Your task to perform on an android device: turn pop-ups on in chrome Image 0: 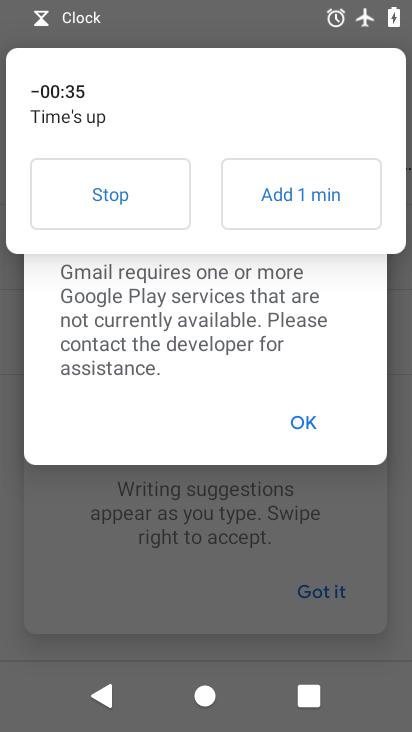
Step 0: press home button
Your task to perform on an android device: turn pop-ups on in chrome Image 1: 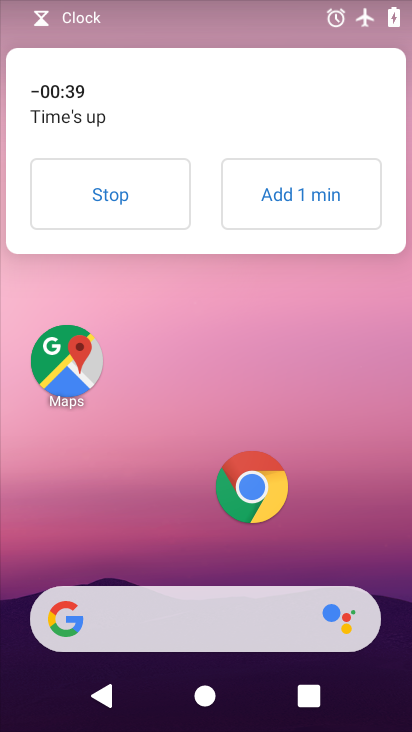
Step 1: click (249, 463)
Your task to perform on an android device: turn pop-ups on in chrome Image 2: 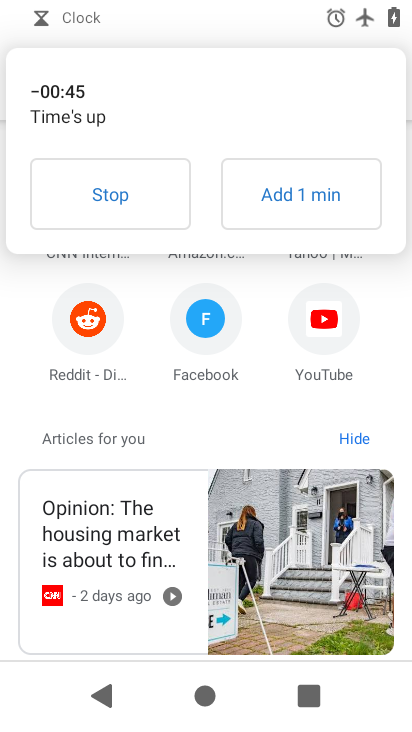
Step 2: click (121, 174)
Your task to perform on an android device: turn pop-ups on in chrome Image 3: 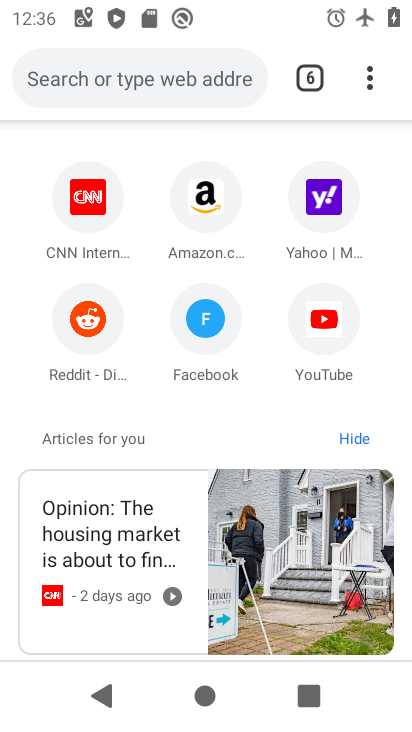
Step 3: drag from (375, 79) to (117, 549)
Your task to perform on an android device: turn pop-ups on in chrome Image 4: 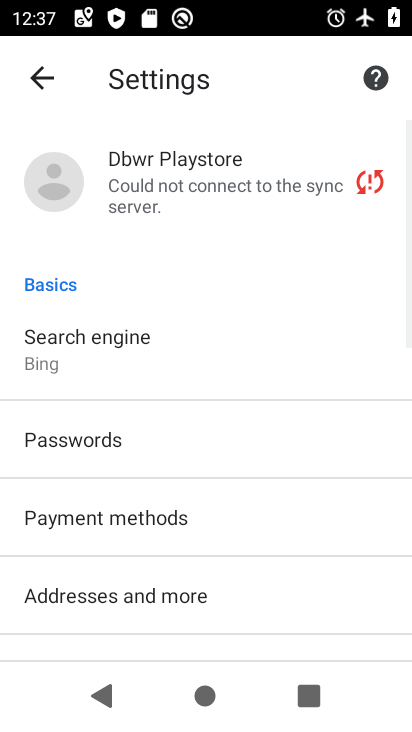
Step 4: drag from (198, 552) to (221, 155)
Your task to perform on an android device: turn pop-ups on in chrome Image 5: 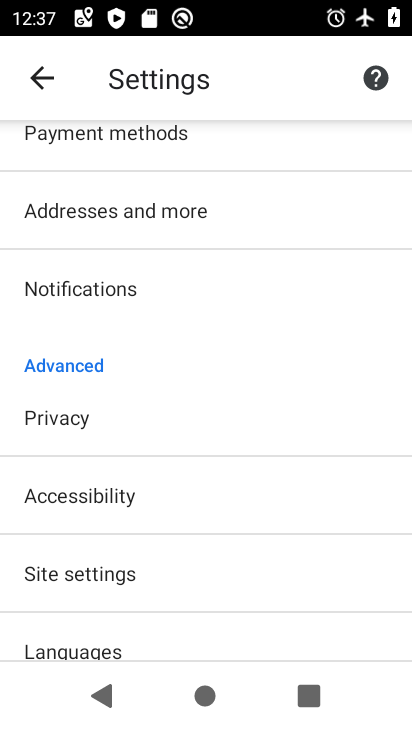
Step 5: click (115, 563)
Your task to perform on an android device: turn pop-ups on in chrome Image 6: 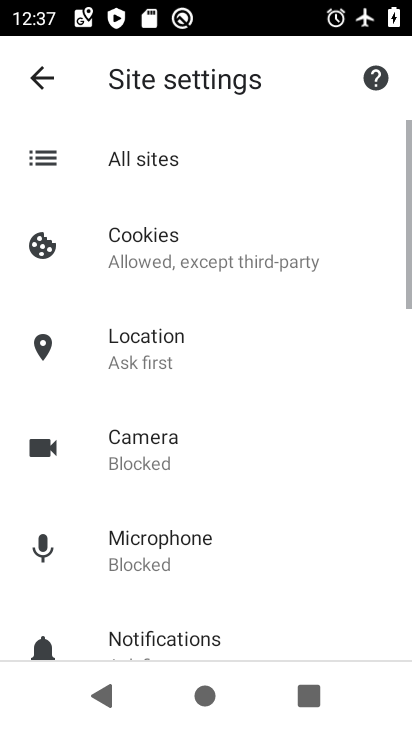
Step 6: drag from (272, 607) to (268, 360)
Your task to perform on an android device: turn pop-ups on in chrome Image 7: 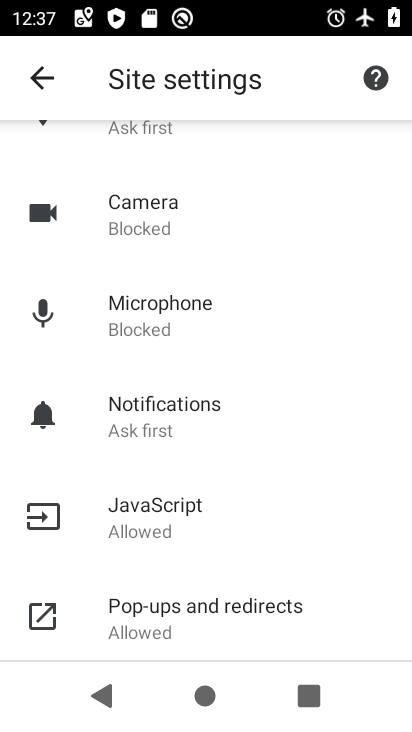
Step 7: click (224, 595)
Your task to perform on an android device: turn pop-ups on in chrome Image 8: 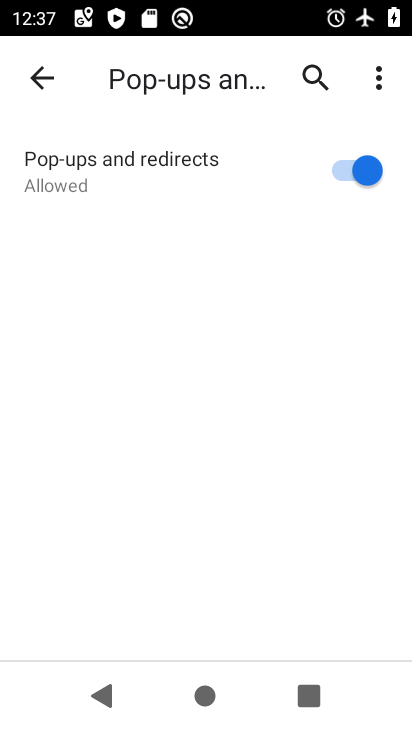
Step 8: task complete